Your task to perform on an android device: Open Chrome and go to settings Image 0: 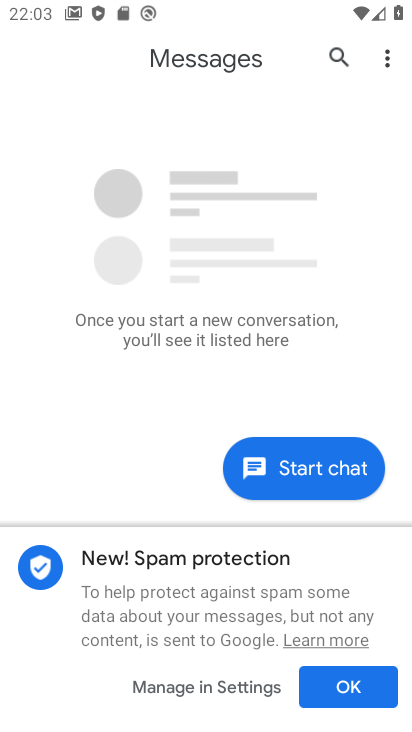
Step 0: press home button
Your task to perform on an android device: Open Chrome and go to settings Image 1: 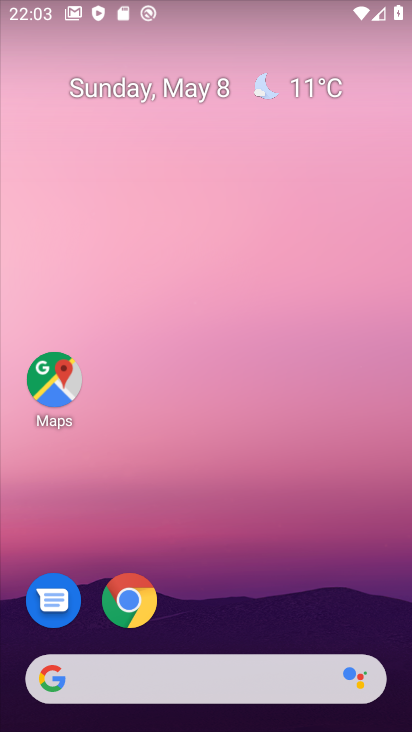
Step 1: click (43, 378)
Your task to perform on an android device: Open Chrome and go to settings Image 2: 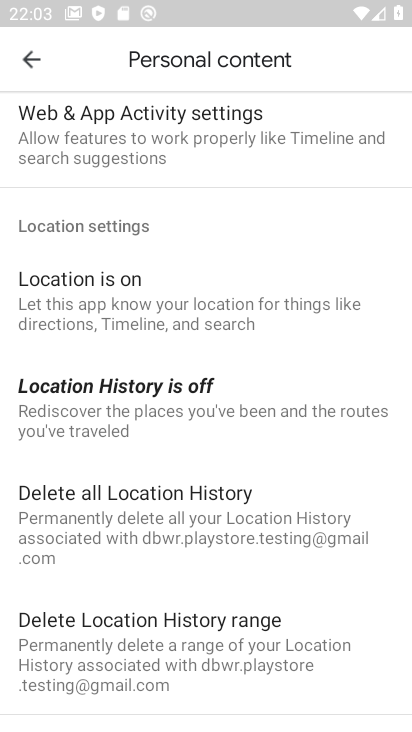
Step 2: click (39, 49)
Your task to perform on an android device: Open Chrome and go to settings Image 3: 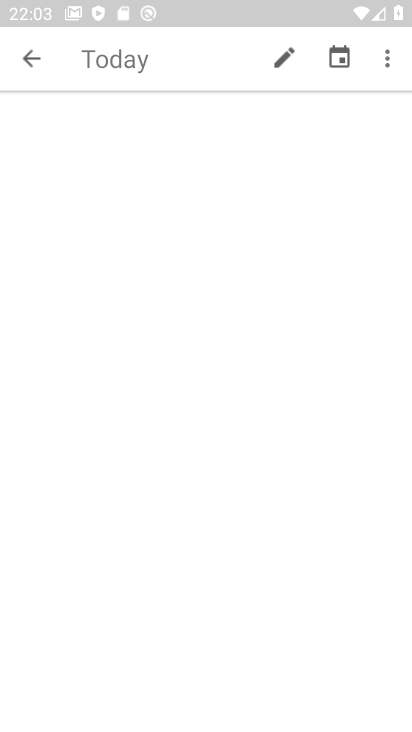
Step 3: click (39, 49)
Your task to perform on an android device: Open Chrome and go to settings Image 4: 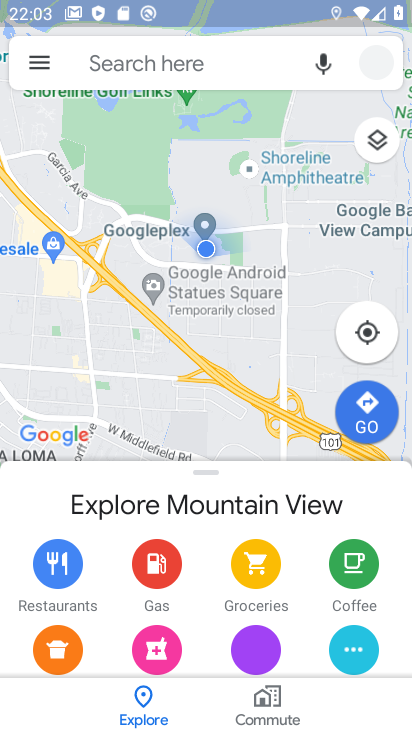
Step 4: click (172, 76)
Your task to perform on an android device: Open Chrome and go to settings Image 5: 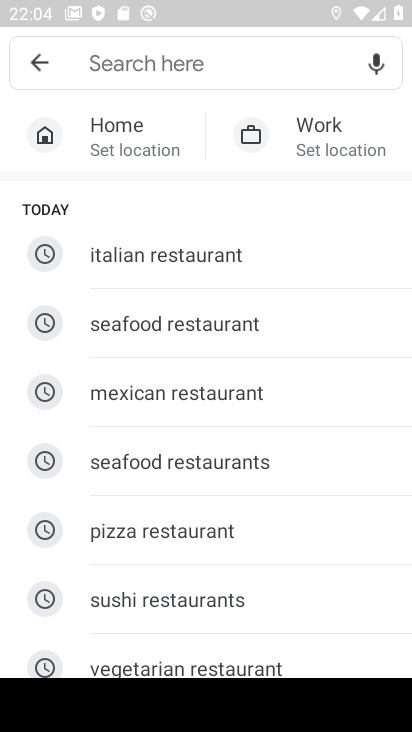
Step 5: type "sushi restaurant"
Your task to perform on an android device: Open Chrome and go to settings Image 6: 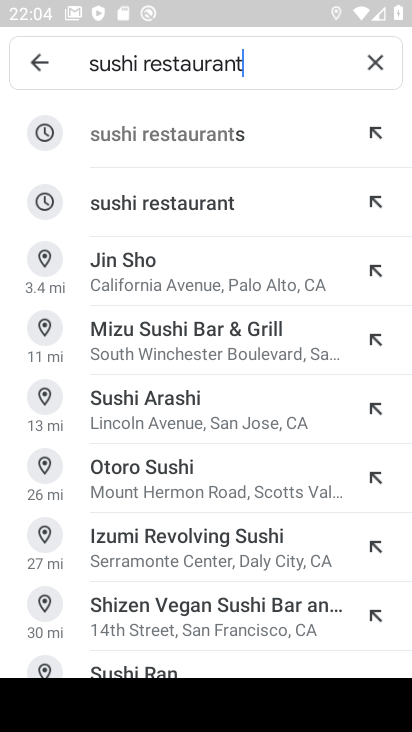
Step 6: press home button
Your task to perform on an android device: Open Chrome and go to settings Image 7: 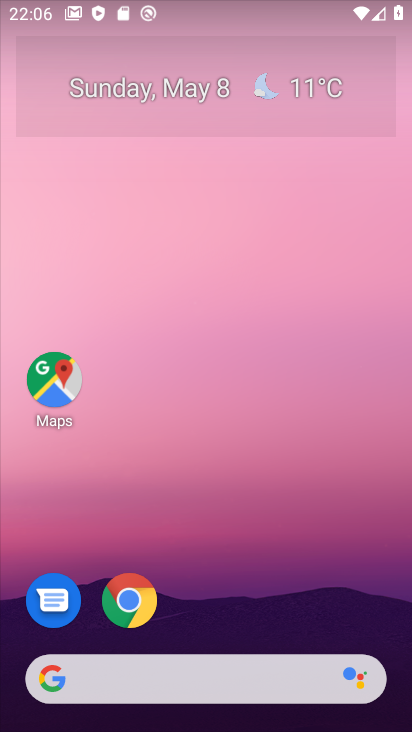
Step 7: click (158, 602)
Your task to perform on an android device: Open Chrome and go to settings Image 8: 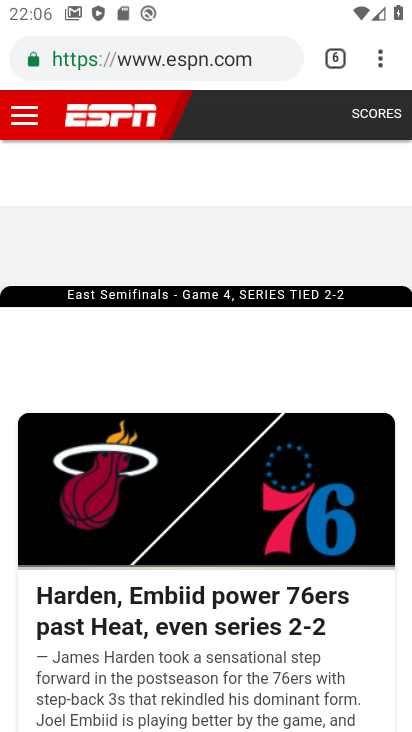
Step 8: click (365, 54)
Your task to perform on an android device: Open Chrome and go to settings Image 9: 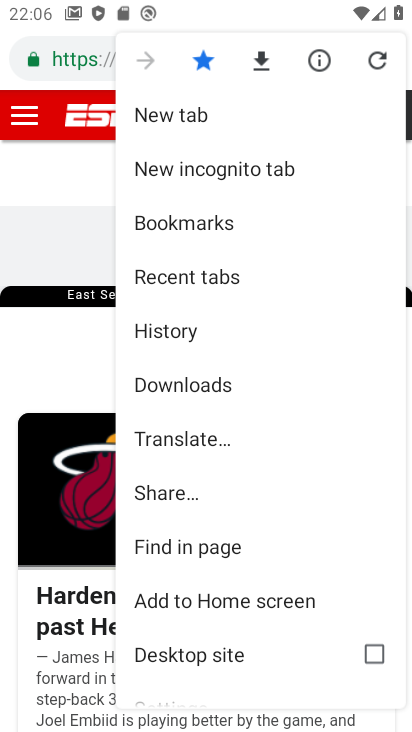
Step 9: drag from (211, 669) to (297, 107)
Your task to perform on an android device: Open Chrome and go to settings Image 10: 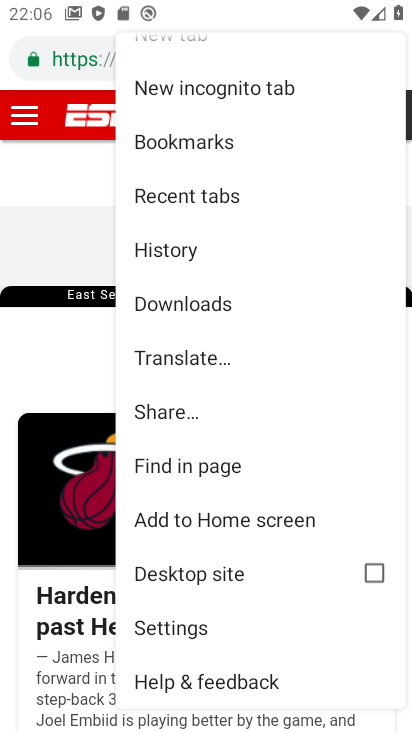
Step 10: click (164, 614)
Your task to perform on an android device: Open Chrome and go to settings Image 11: 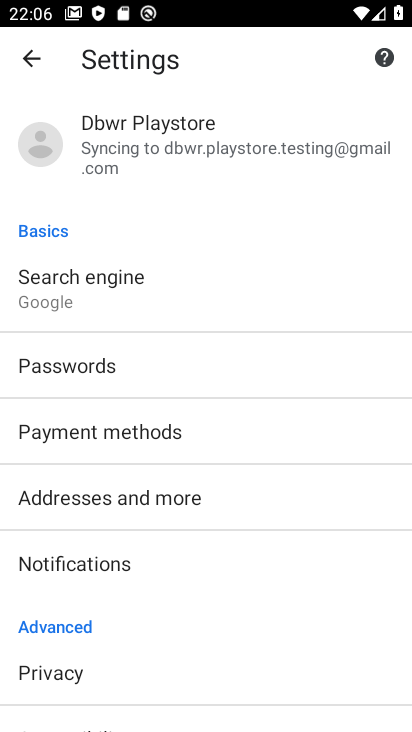
Step 11: task complete